Your task to perform on an android device: Toggle the flashlight Image 0: 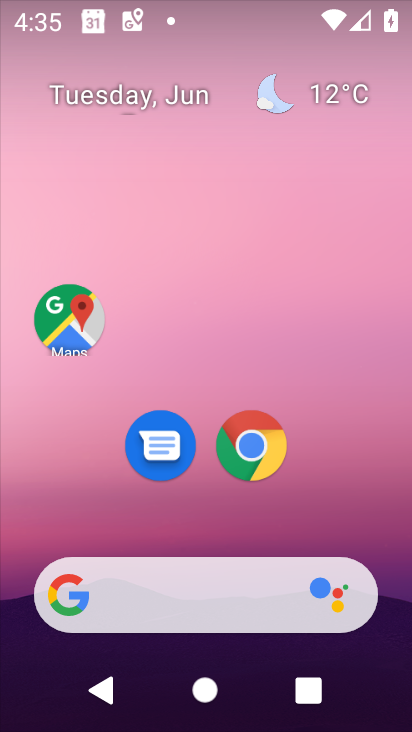
Step 0: click (274, 39)
Your task to perform on an android device: Toggle the flashlight Image 1: 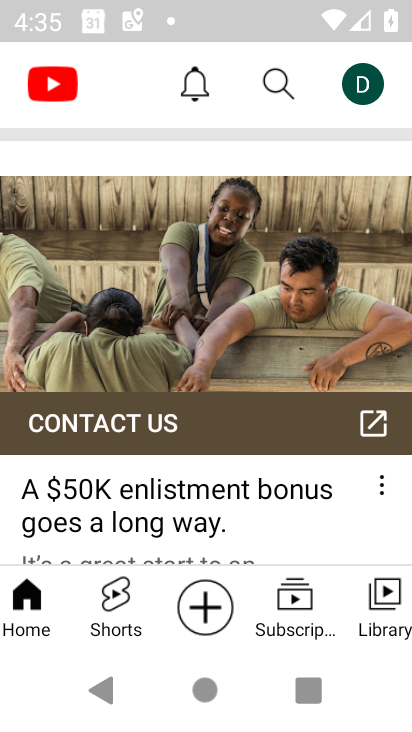
Step 1: press home button
Your task to perform on an android device: Toggle the flashlight Image 2: 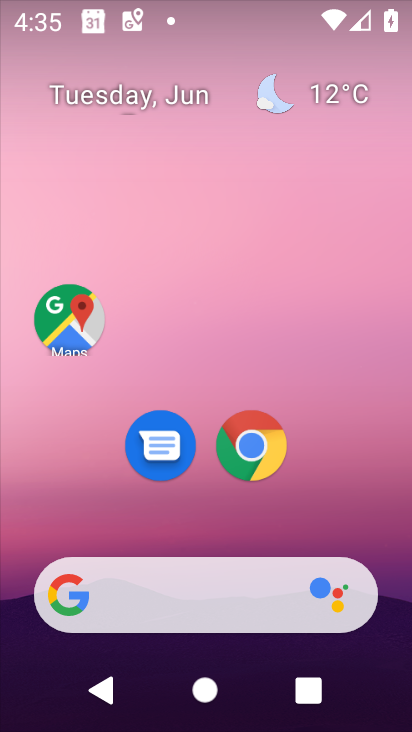
Step 2: drag from (328, 530) to (291, 0)
Your task to perform on an android device: Toggle the flashlight Image 3: 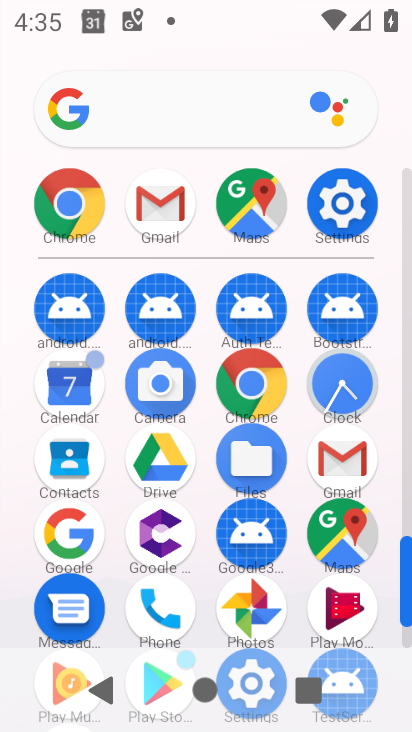
Step 3: click (357, 188)
Your task to perform on an android device: Toggle the flashlight Image 4: 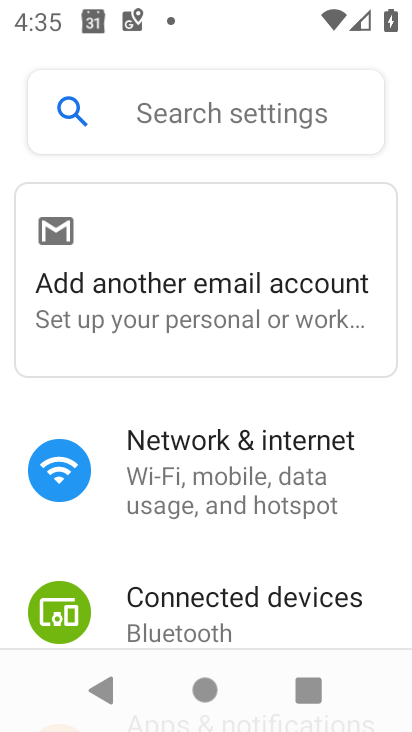
Step 4: task complete